Your task to perform on an android device: What's the price of the 2x4x8 boards at Home Depot? Image 0: 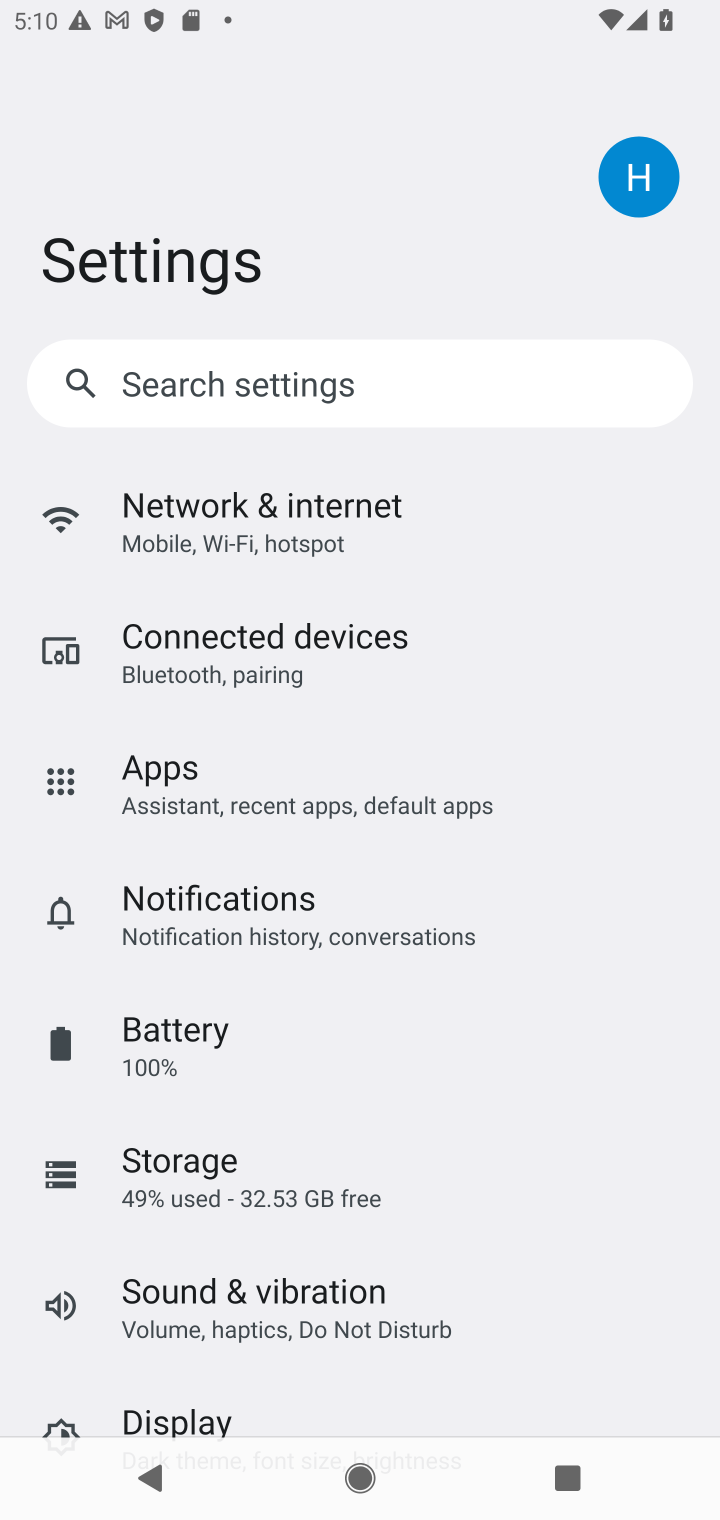
Step 0: press home button
Your task to perform on an android device: What's the price of the 2x4x8 boards at Home Depot? Image 1: 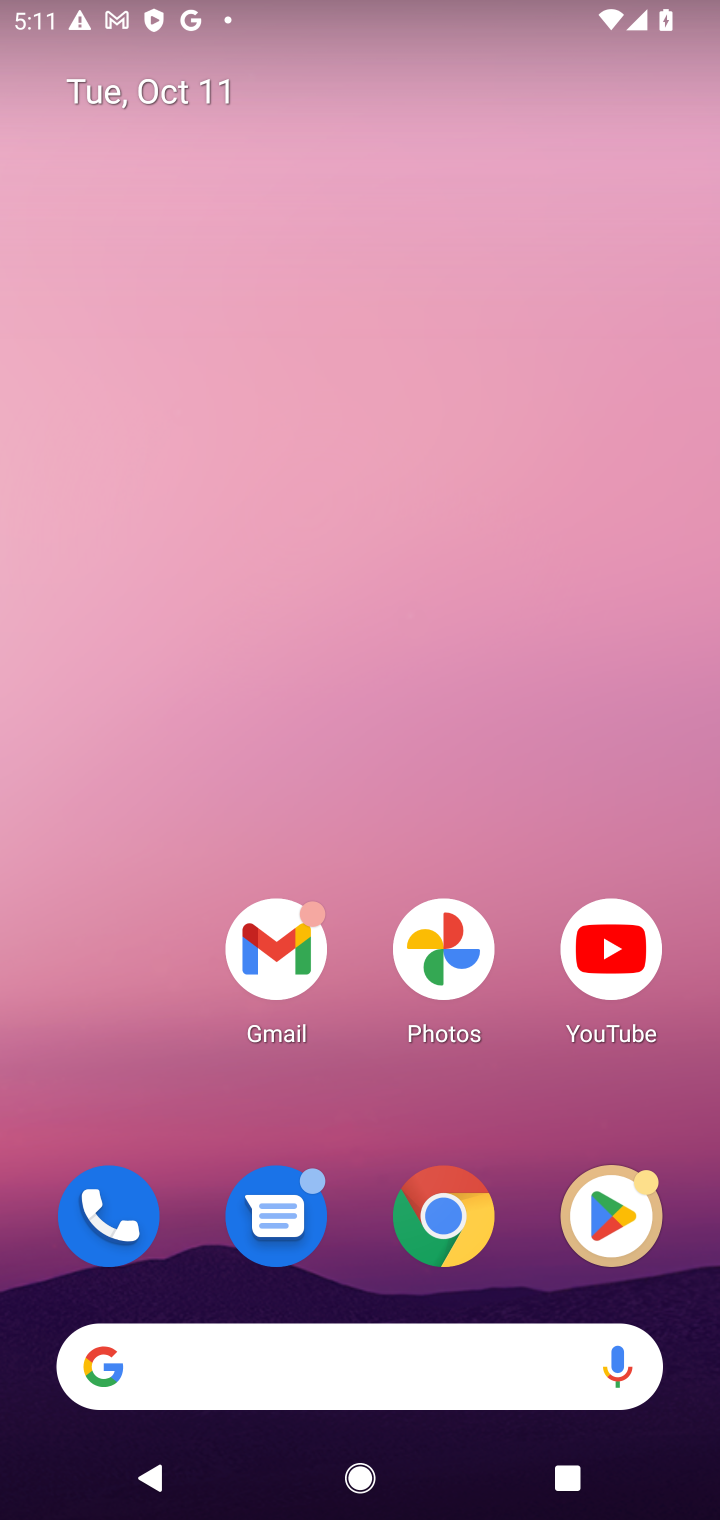
Step 1: click (418, 1223)
Your task to perform on an android device: What's the price of the 2x4x8 boards at Home Depot? Image 2: 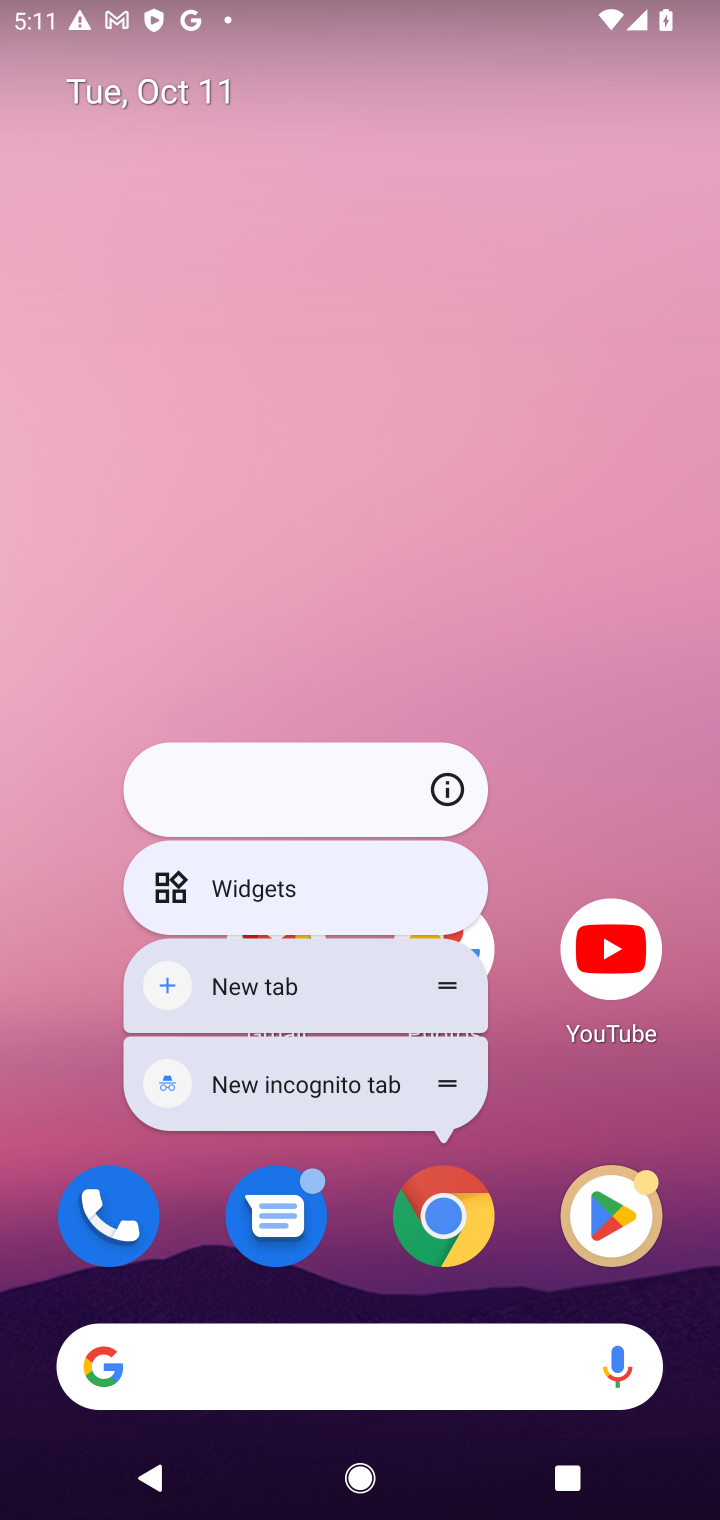
Step 2: click (418, 1223)
Your task to perform on an android device: What's the price of the 2x4x8 boards at Home Depot? Image 3: 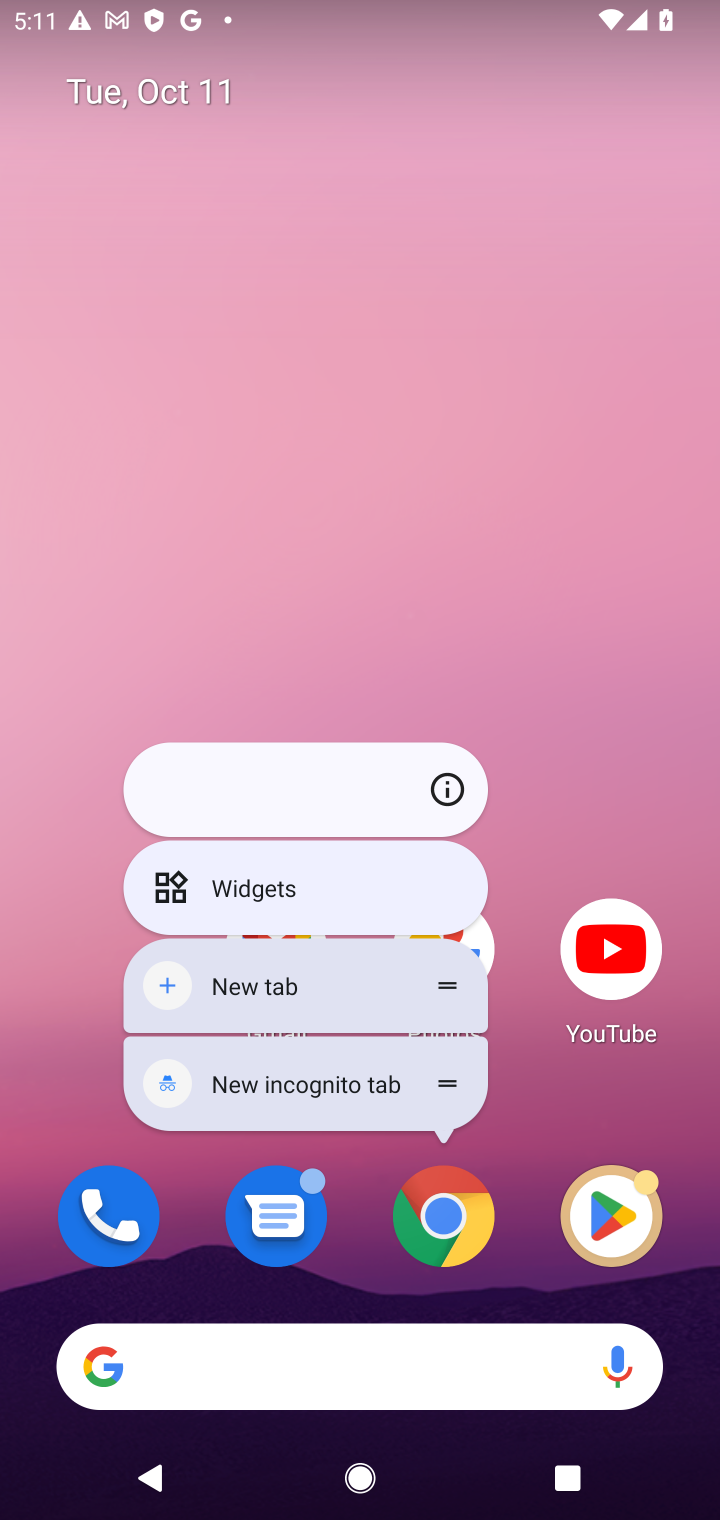
Step 3: click (418, 1223)
Your task to perform on an android device: What's the price of the 2x4x8 boards at Home Depot? Image 4: 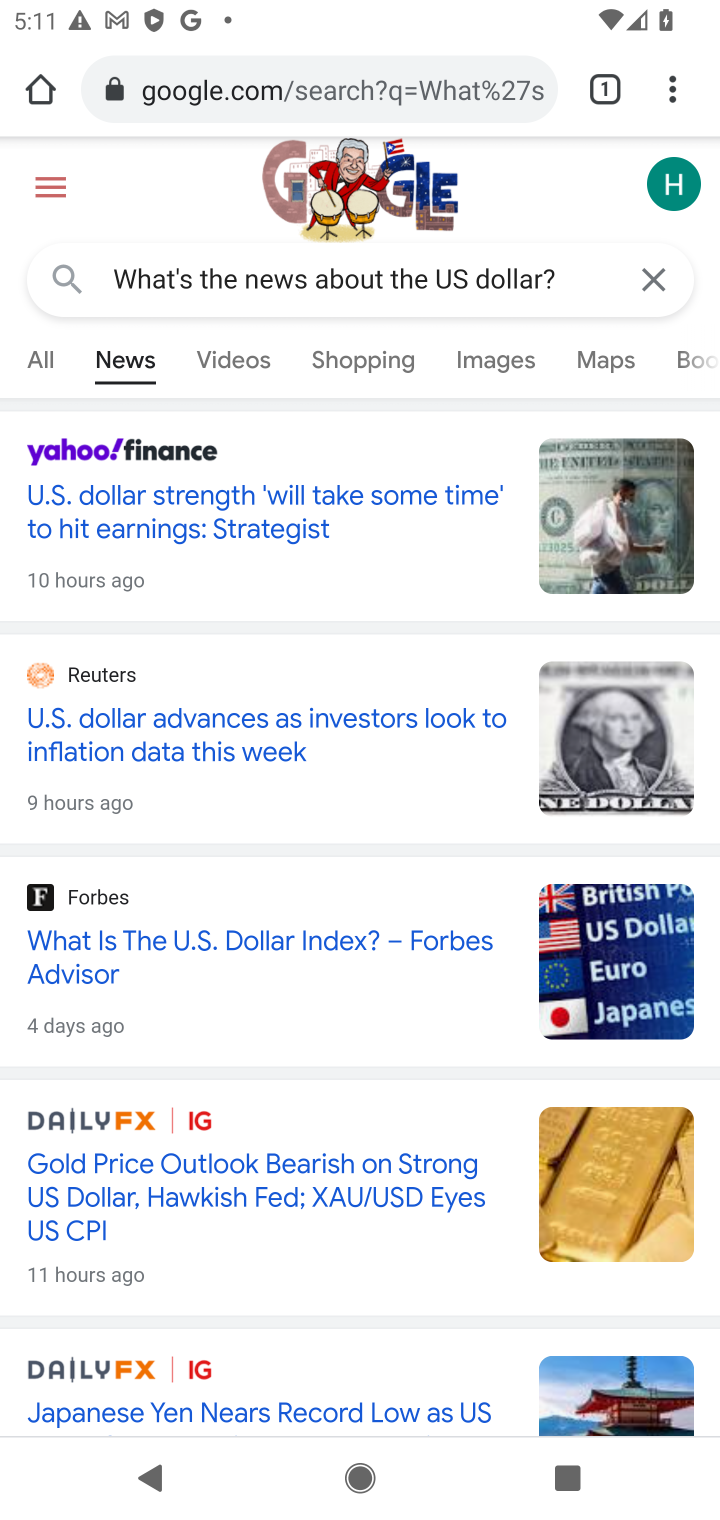
Step 4: click (645, 283)
Your task to perform on an android device: What's the price of the 2x4x8 boards at Home Depot? Image 5: 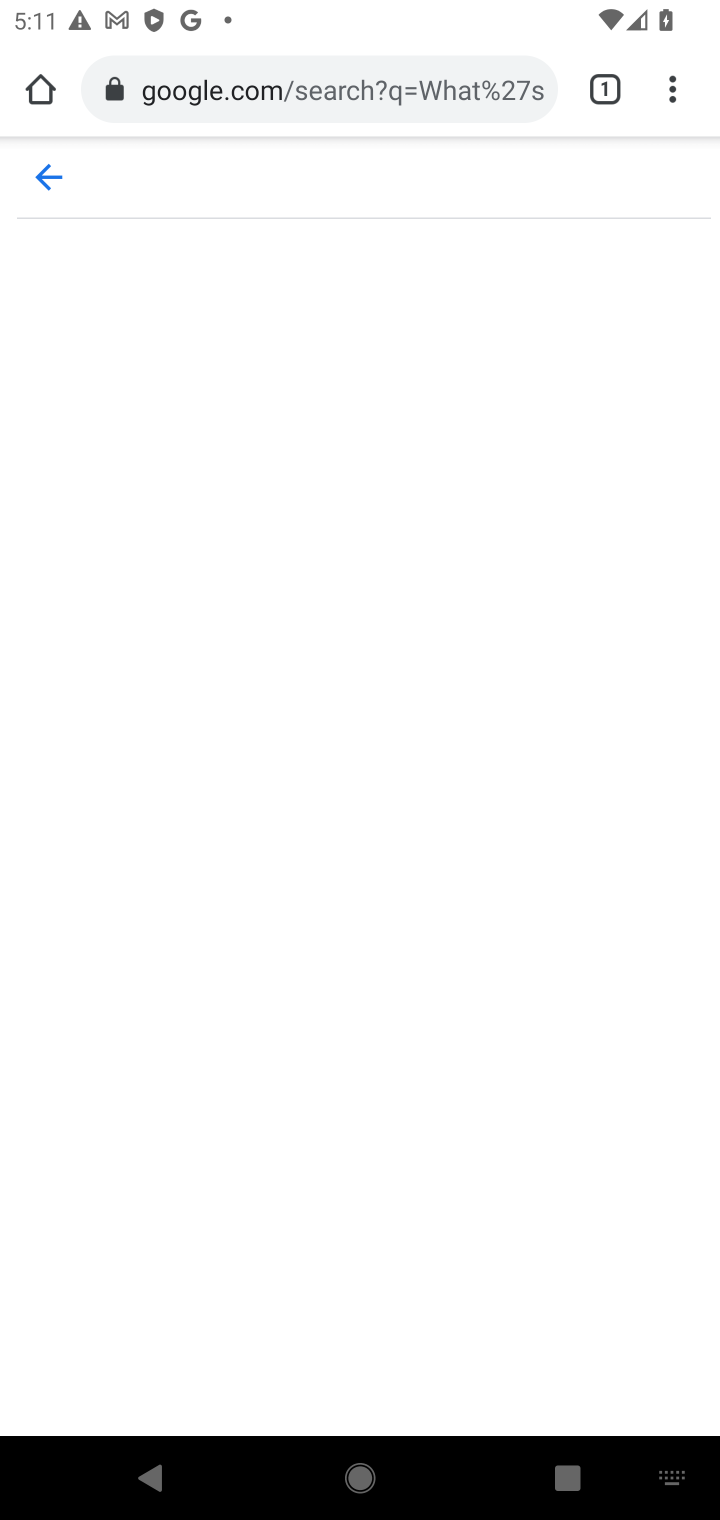
Step 5: type "What's the price of the 2x4x8 boards at Home Depot?"
Your task to perform on an android device: What's the price of the 2x4x8 boards at Home Depot? Image 6: 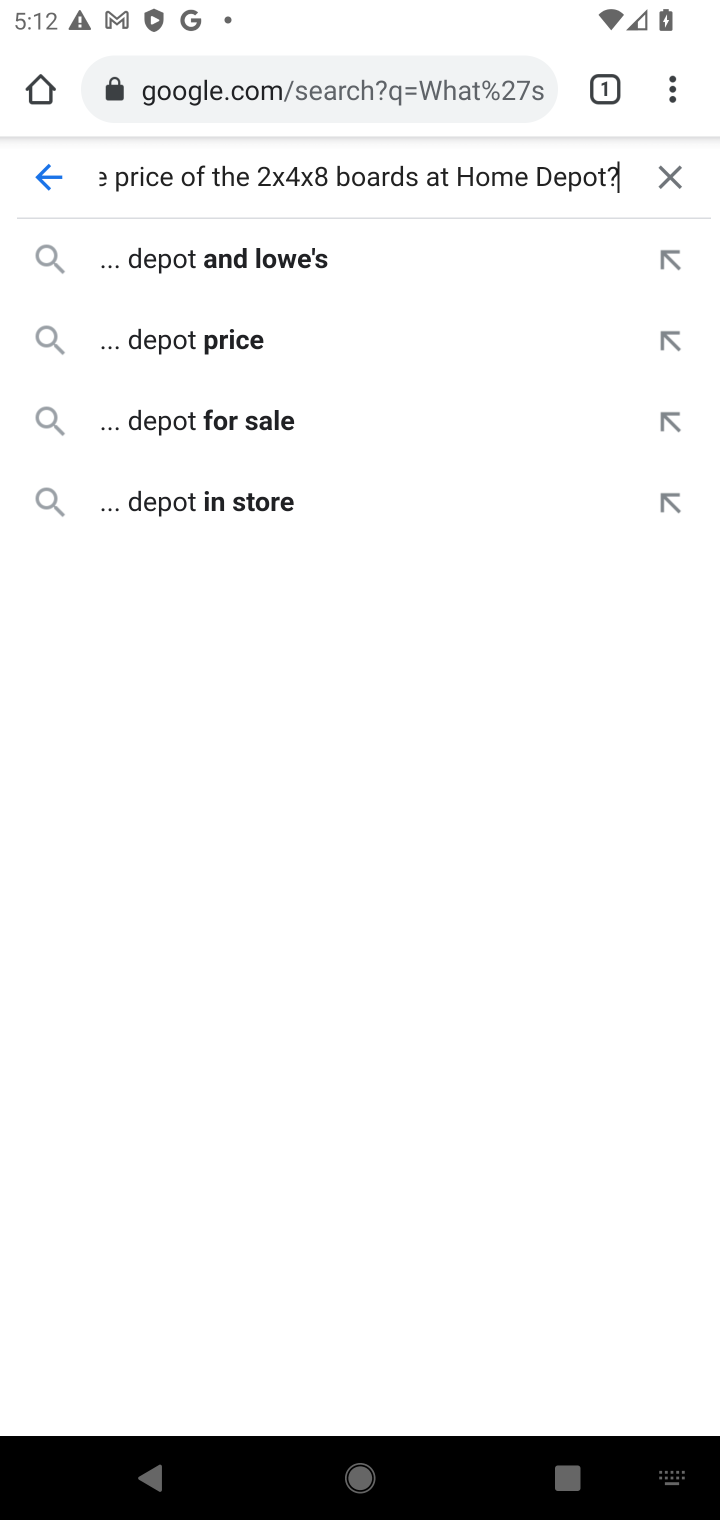
Step 6: press enter
Your task to perform on an android device: What's the price of the 2x4x8 boards at Home Depot? Image 7: 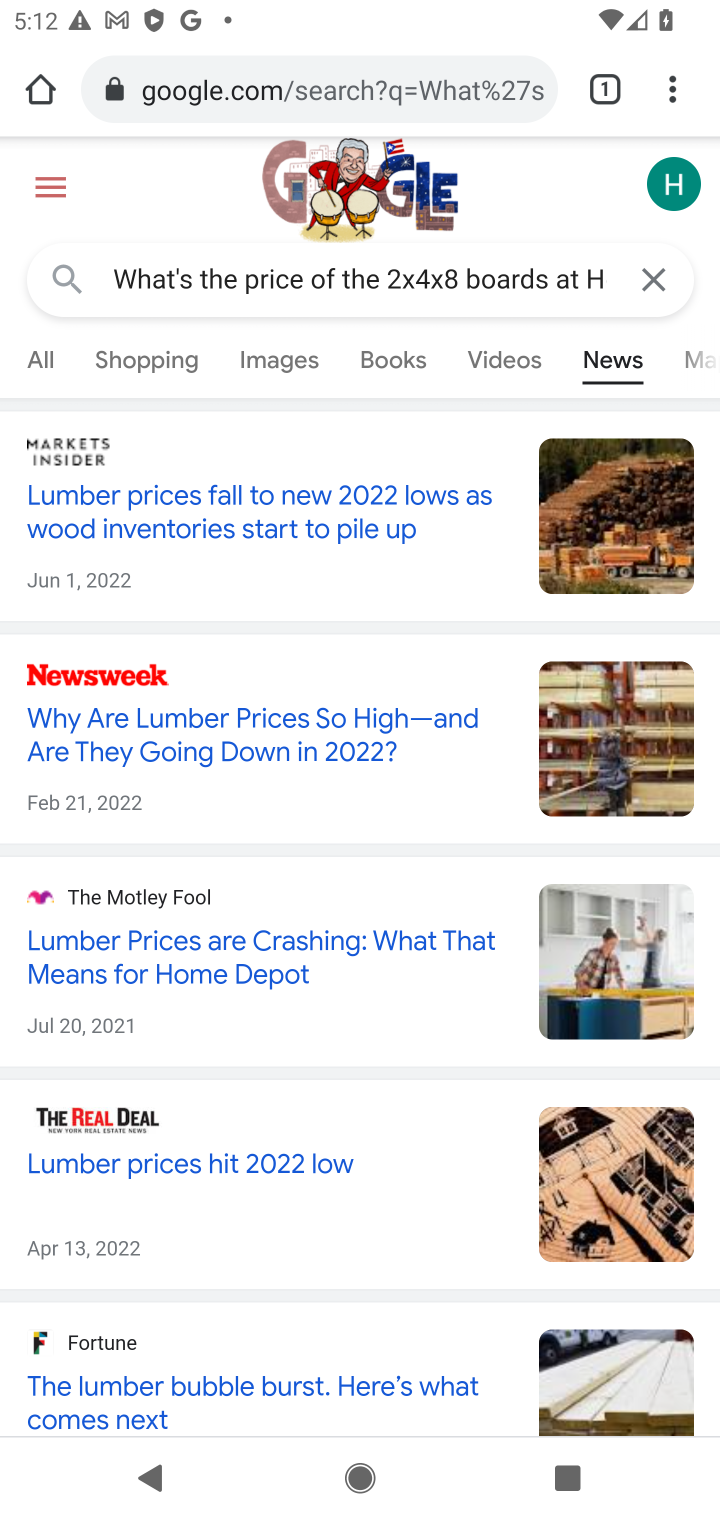
Step 7: click (37, 354)
Your task to perform on an android device: What's the price of the 2x4x8 boards at Home Depot? Image 8: 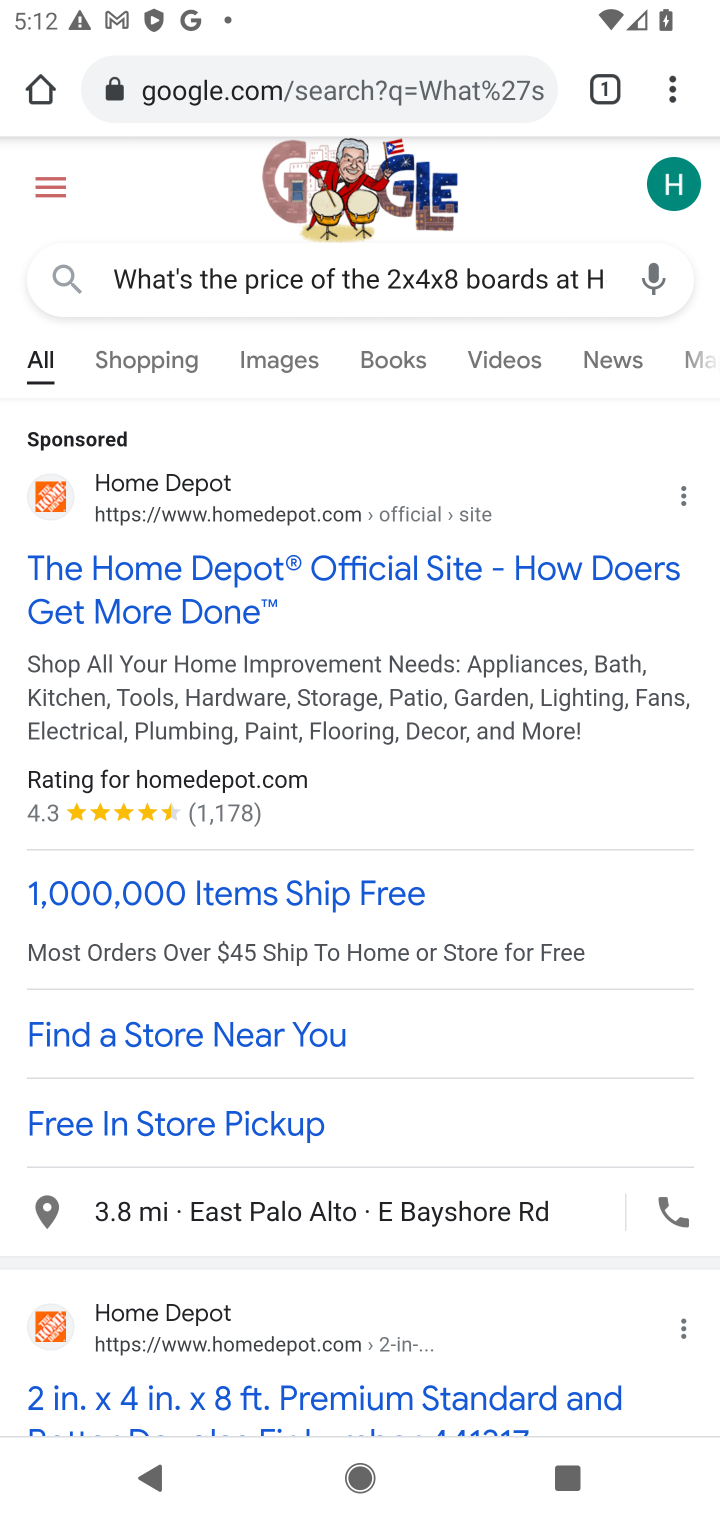
Step 8: click (198, 1399)
Your task to perform on an android device: What's the price of the 2x4x8 boards at Home Depot? Image 9: 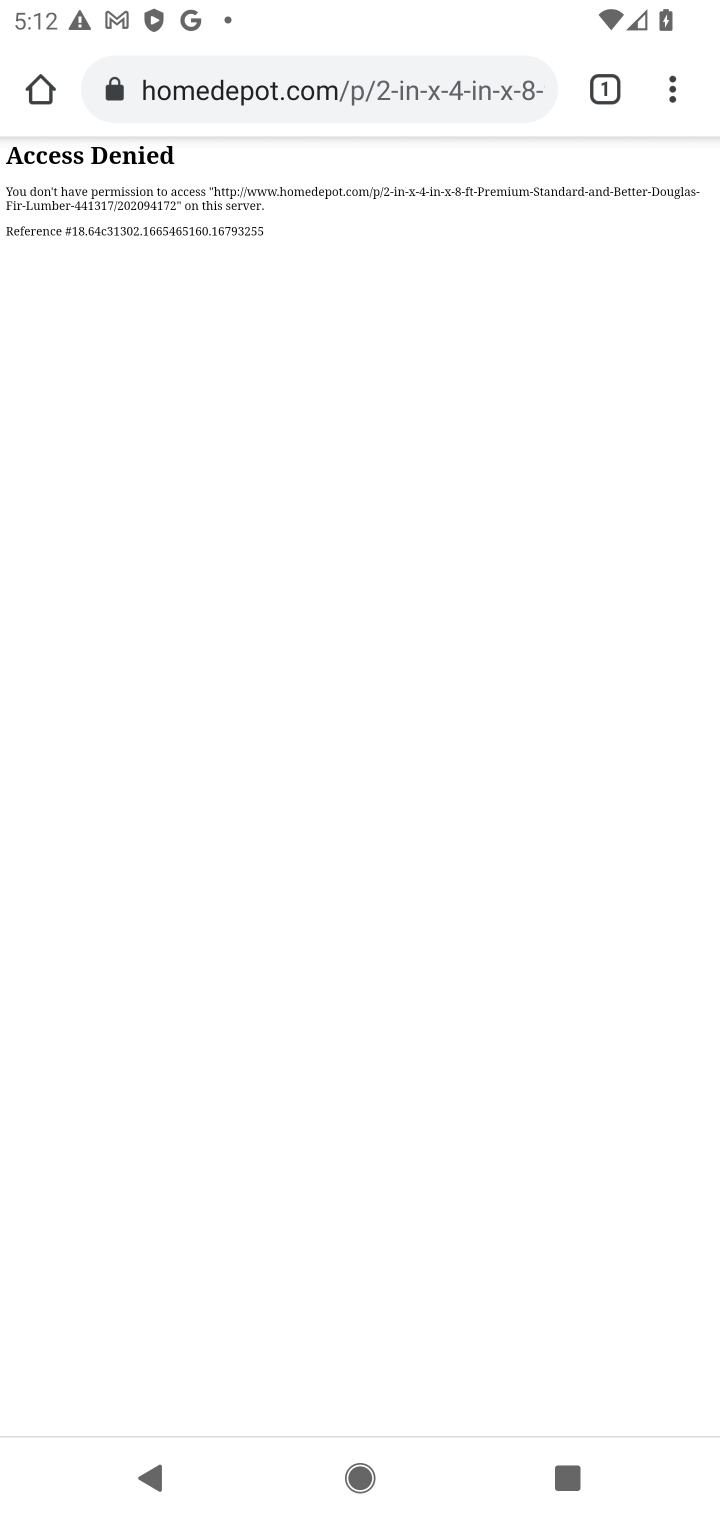
Step 9: task complete